Your task to perform on an android device: Open network settings Image 0: 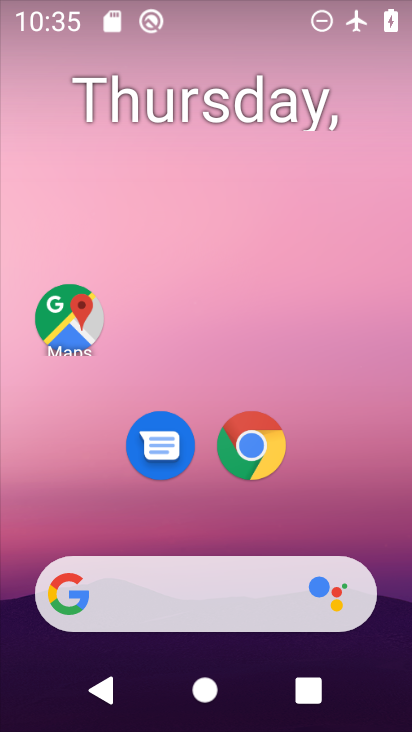
Step 0: drag from (226, 547) to (192, 51)
Your task to perform on an android device: Open network settings Image 1: 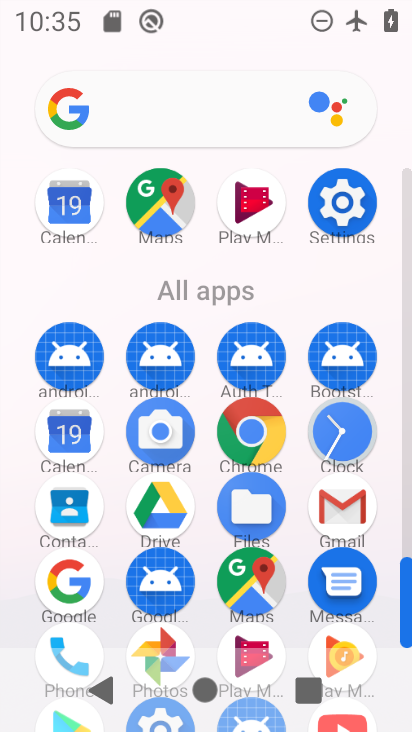
Step 1: click (323, 205)
Your task to perform on an android device: Open network settings Image 2: 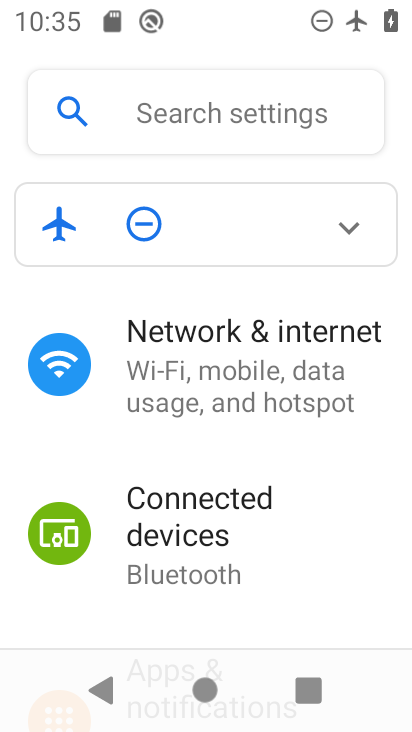
Step 2: click (309, 371)
Your task to perform on an android device: Open network settings Image 3: 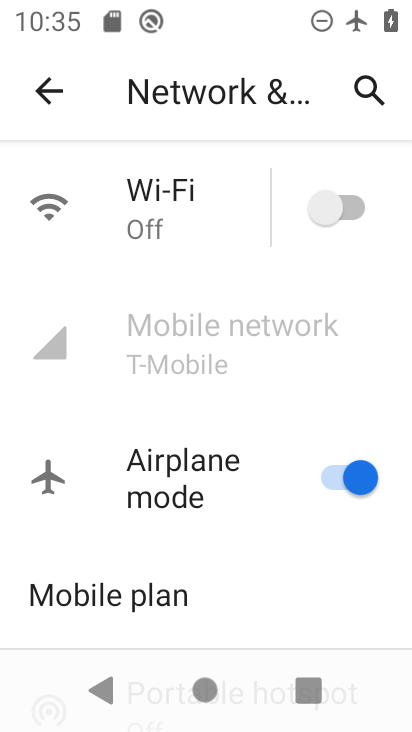
Step 3: task complete